Your task to perform on an android device: Go to privacy settings Image 0: 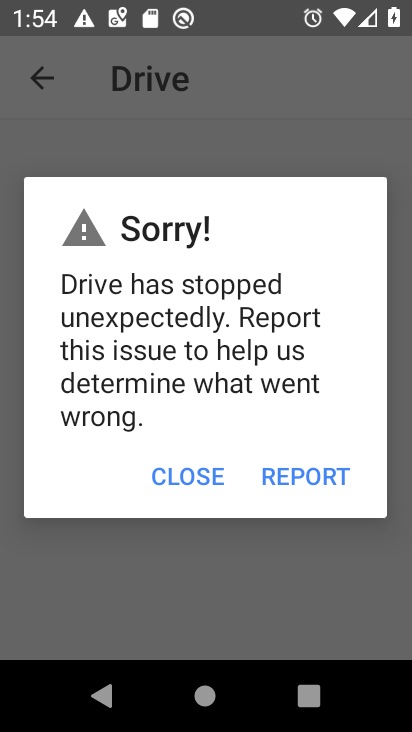
Step 0: press back button
Your task to perform on an android device: Go to privacy settings Image 1: 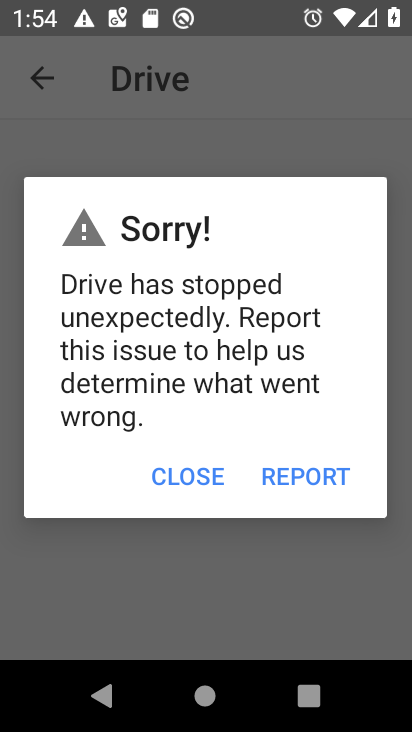
Step 1: press back button
Your task to perform on an android device: Go to privacy settings Image 2: 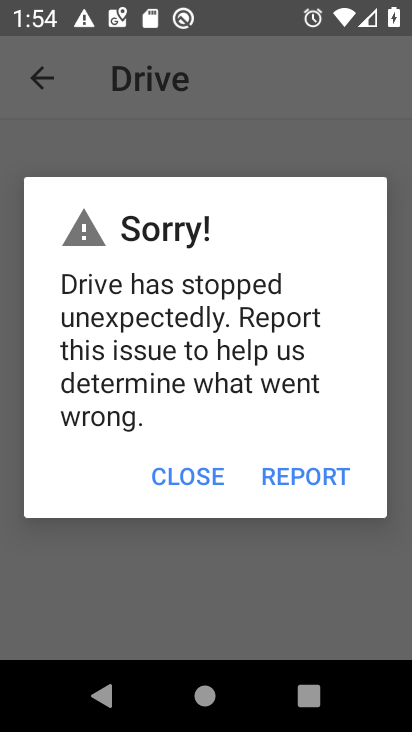
Step 2: press home button
Your task to perform on an android device: Go to privacy settings Image 3: 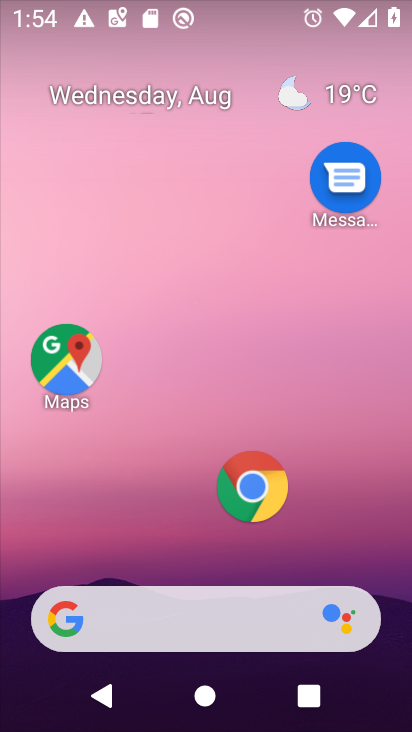
Step 3: drag from (133, 560) to (224, 6)
Your task to perform on an android device: Go to privacy settings Image 4: 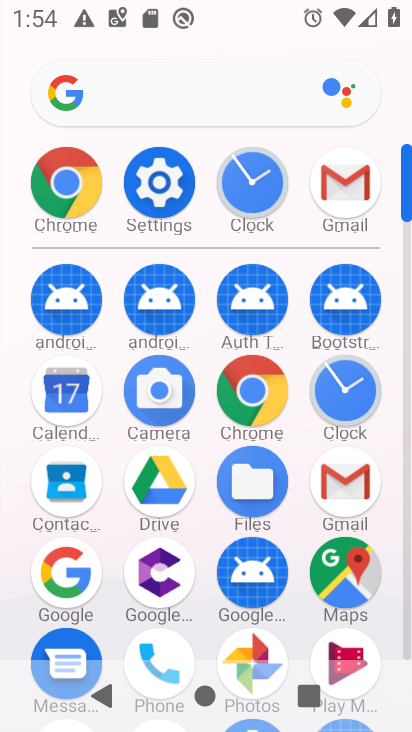
Step 4: click (56, 174)
Your task to perform on an android device: Go to privacy settings Image 5: 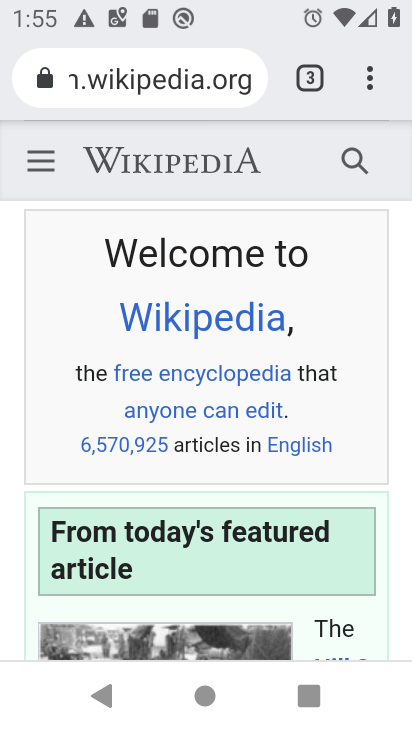
Step 5: click (361, 71)
Your task to perform on an android device: Go to privacy settings Image 6: 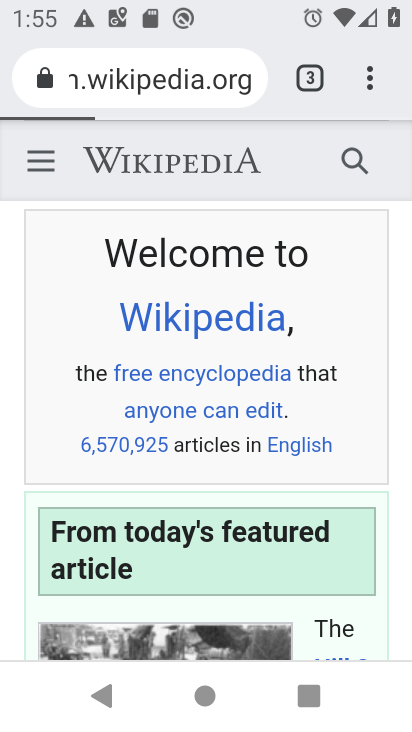
Step 6: press back button
Your task to perform on an android device: Go to privacy settings Image 7: 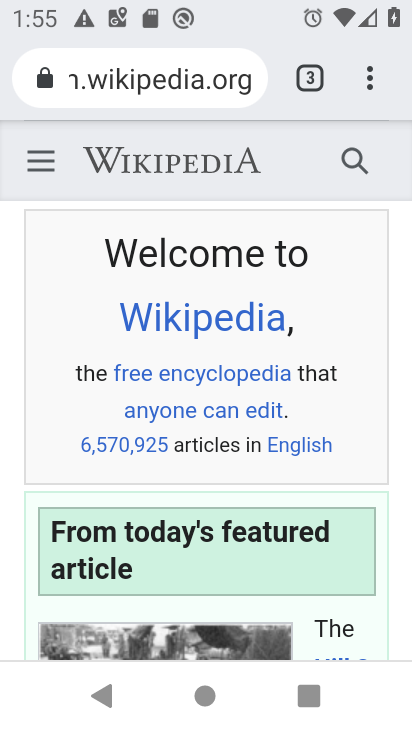
Step 7: press back button
Your task to perform on an android device: Go to privacy settings Image 8: 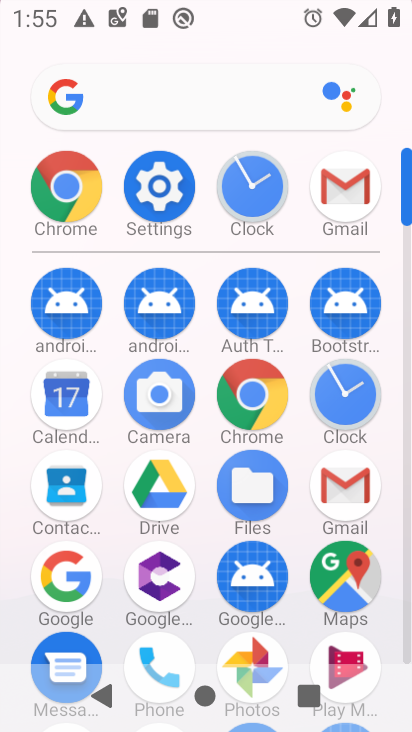
Step 8: press back button
Your task to perform on an android device: Go to privacy settings Image 9: 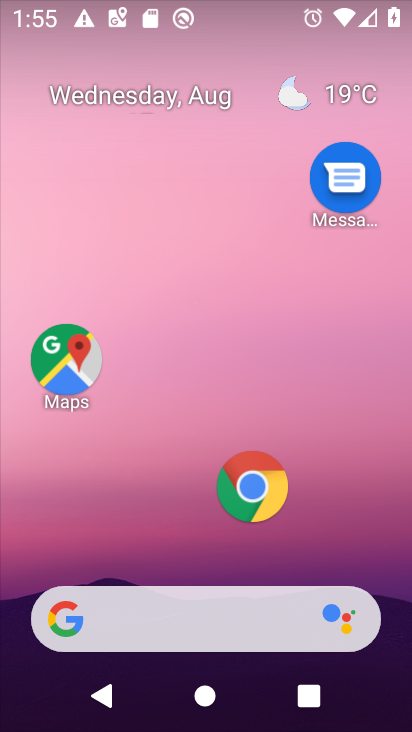
Step 9: drag from (135, 475) to (169, 27)
Your task to perform on an android device: Go to privacy settings Image 10: 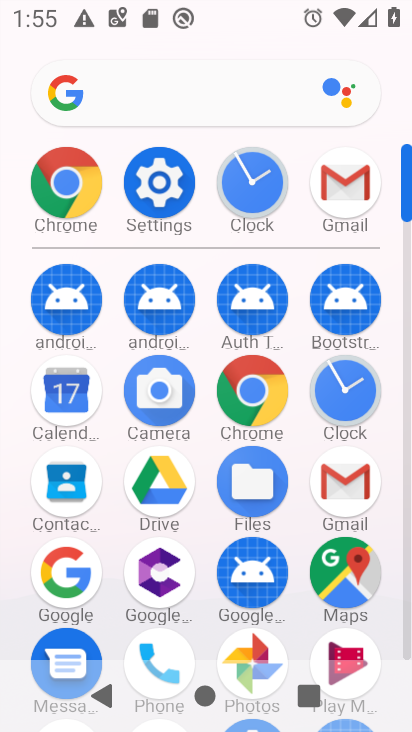
Step 10: click (161, 175)
Your task to perform on an android device: Go to privacy settings Image 11: 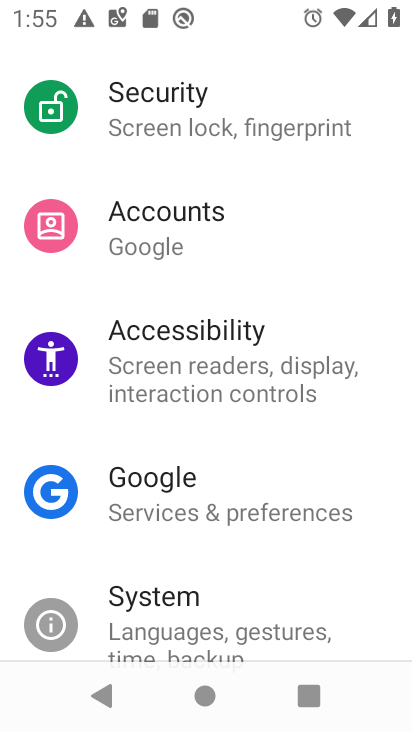
Step 11: drag from (197, 626) to (215, 730)
Your task to perform on an android device: Go to privacy settings Image 12: 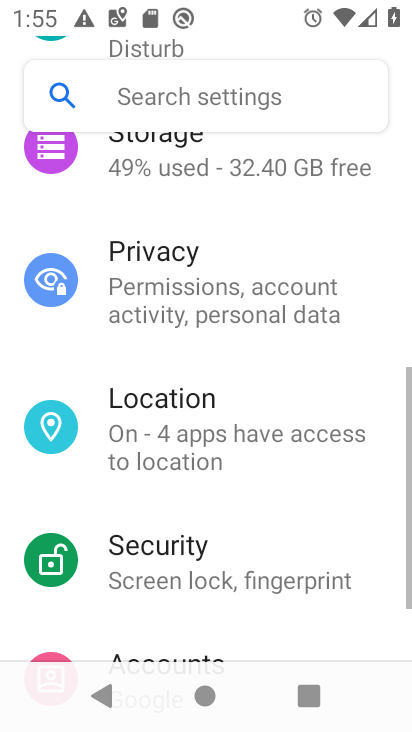
Step 12: drag from (213, 227) to (213, 329)
Your task to perform on an android device: Go to privacy settings Image 13: 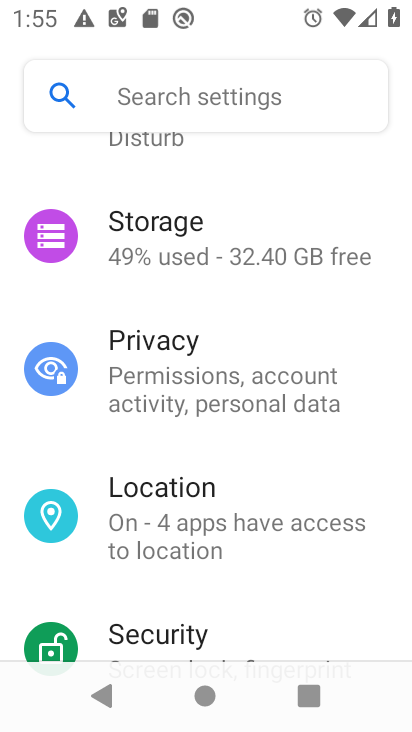
Step 13: click (186, 367)
Your task to perform on an android device: Go to privacy settings Image 14: 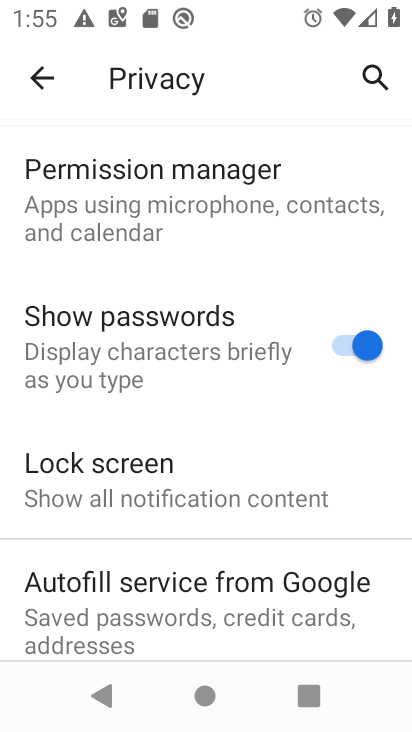
Step 14: task complete